Your task to perform on an android device: move an email to a new category in the gmail app Image 0: 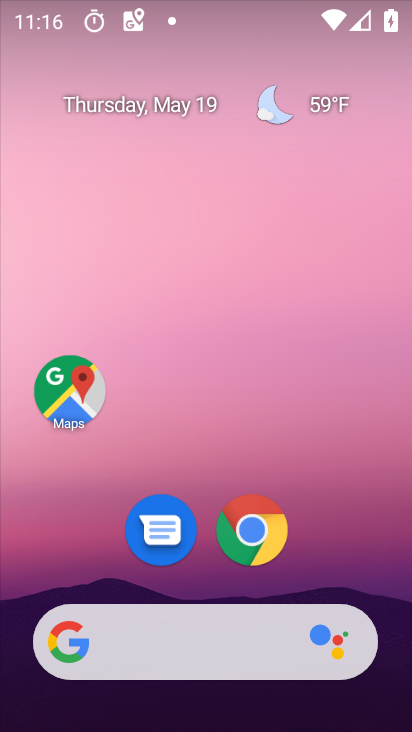
Step 0: drag from (346, 531) to (339, 215)
Your task to perform on an android device: move an email to a new category in the gmail app Image 1: 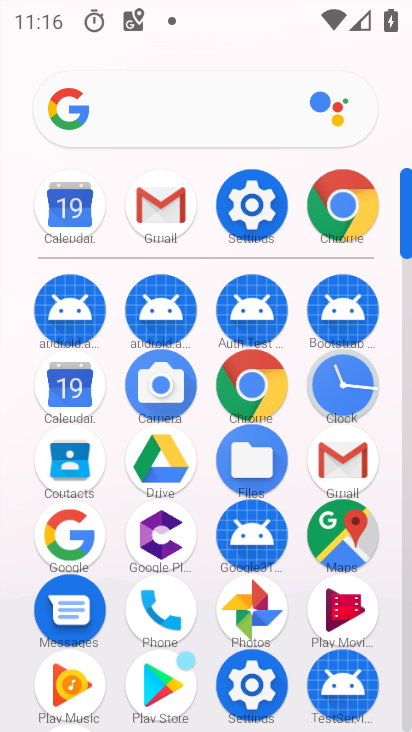
Step 1: click (338, 471)
Your task to perform on an android device: move an email to a new category in the gmail app Image 2: 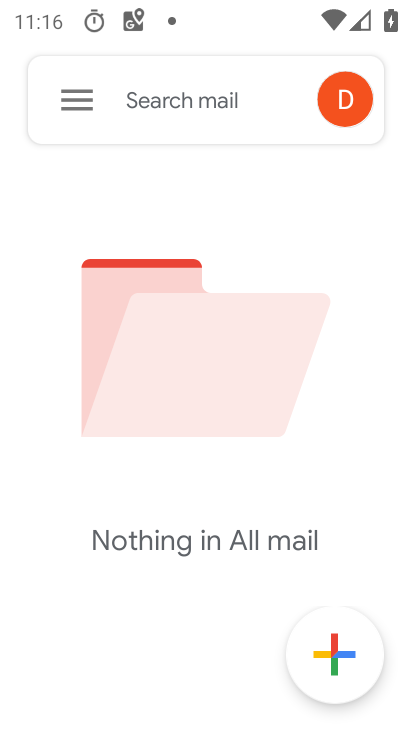
Step 2: click (65, 102)
Your task to perform on an android device: move an email to a new category in the gmail app Image 3: 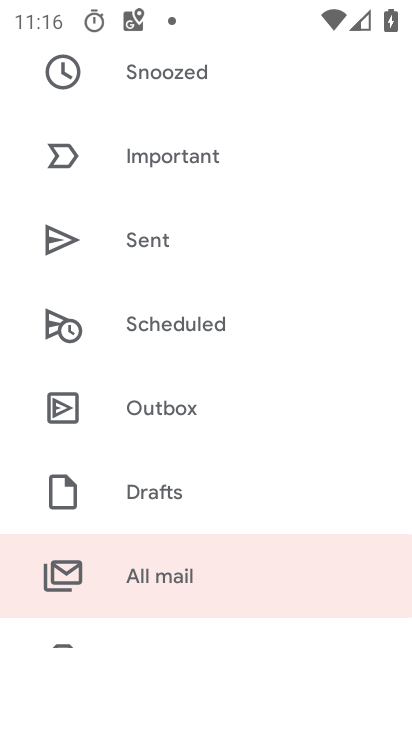
Step 3: click (149, 578)
Your task to perform on an android device: move an email to a new category in the gmail app Image 4: 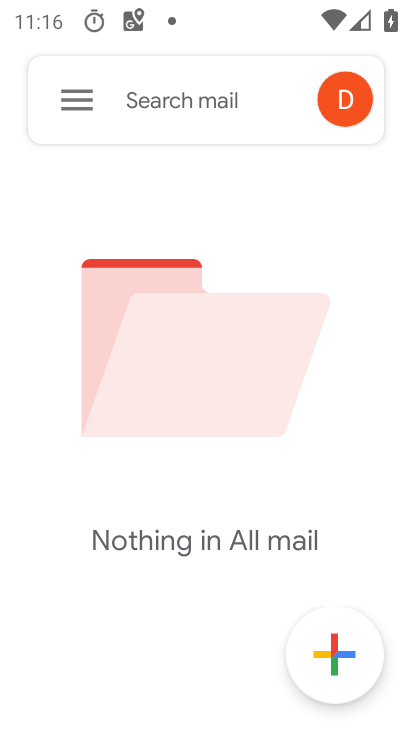
Step 4: task complete